Your task to perform on an android device: Open calendar and show me the third week of next month Image 0: 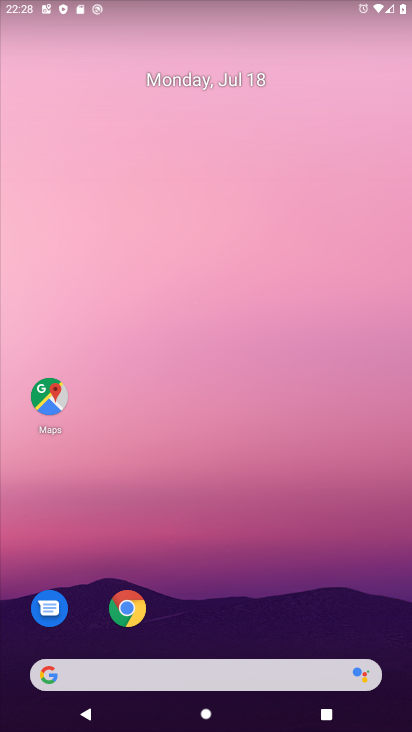
Step 0: drag from (31, 707) to (223, 155)
Your task to perform on an android device: Open calendar and show me the third week of next month Image 1: 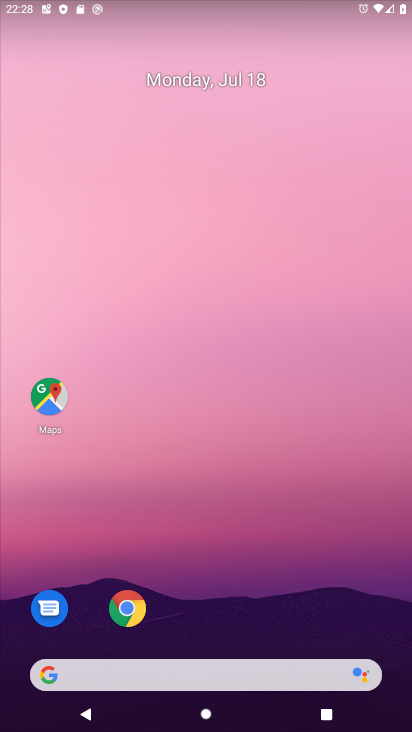
Step 1: drag from (41, 715) to (233, 290)
Your task to perform on an android device: Open calendar and show me the third week of next month Image 2: 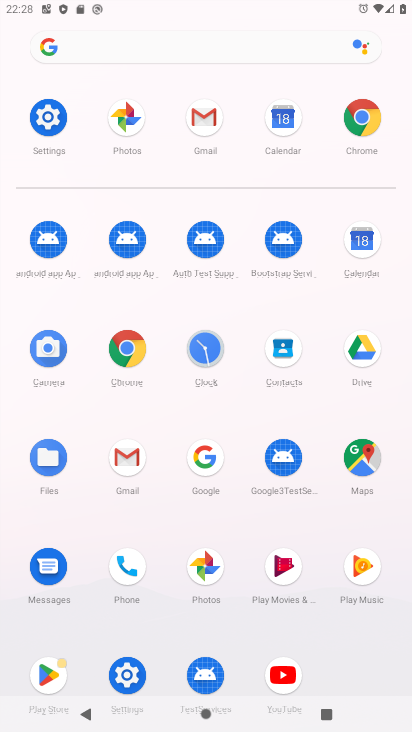
Step 2: click (362, 236)
Your task to perform on an android device: Open calendar and show me the third week of next month Image 3: 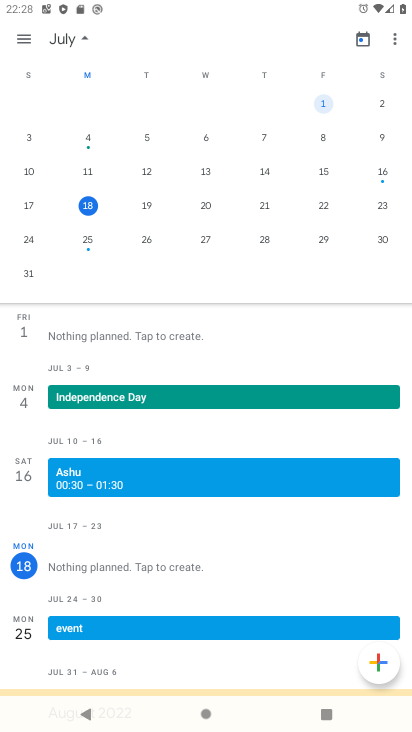
Step 3: drag from (330, 174) to (3, 119)
Your task to perform on an android device: Open calendar and show me the third week of next month Image 4: 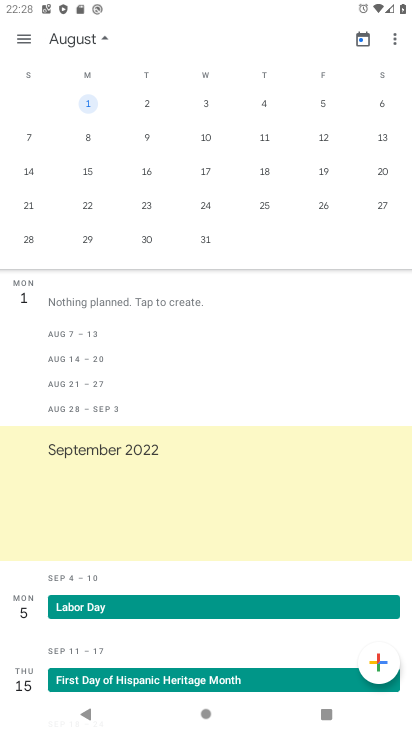
Step 4: click (89, 173)
Your task to perform on an android device: Open calendar and show me the third week of next month Image 5: 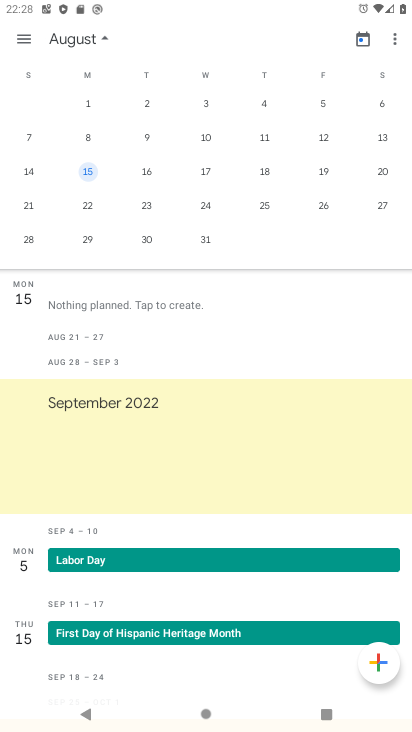
Step 5: task complete